Your task to perform on an android device: turn off notifications settings in the gmail app Image 0: 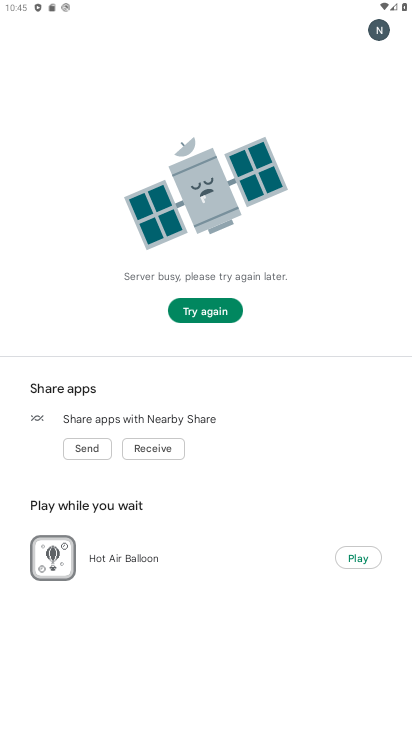
Step 0: press home button
Your task to perform on an android device: turn off notifications settings in the gmail app Image 1: 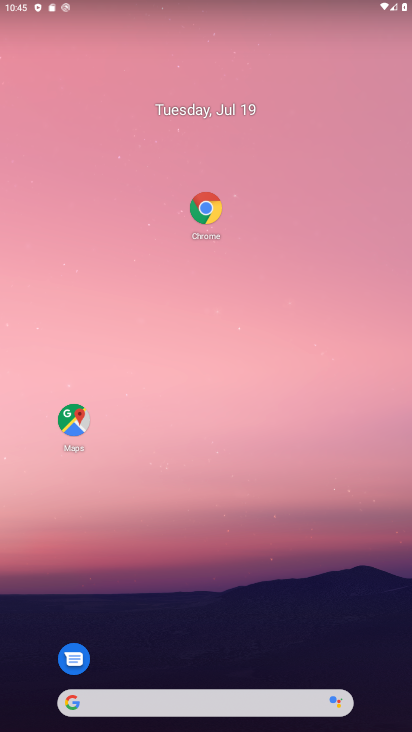
Step 1: drag from (133, 694) to (268, 154)
Your task to perform on an android device: turn off notifications settings in the gmail app Image 2: 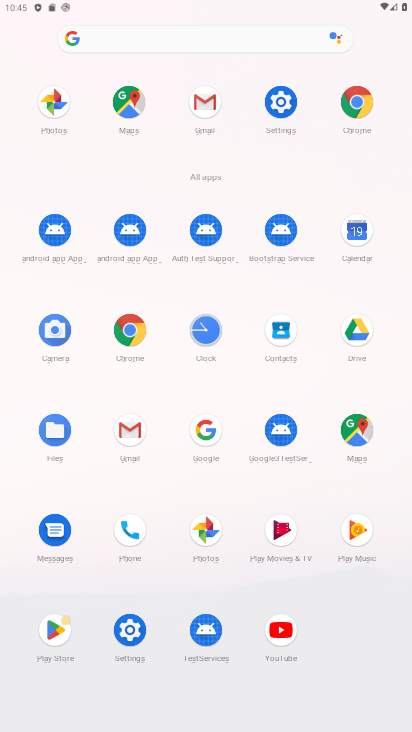
Step 2: click (131, 435)
Your task to perform on an android device: turn off notifications settings in the gmail app Image 3: 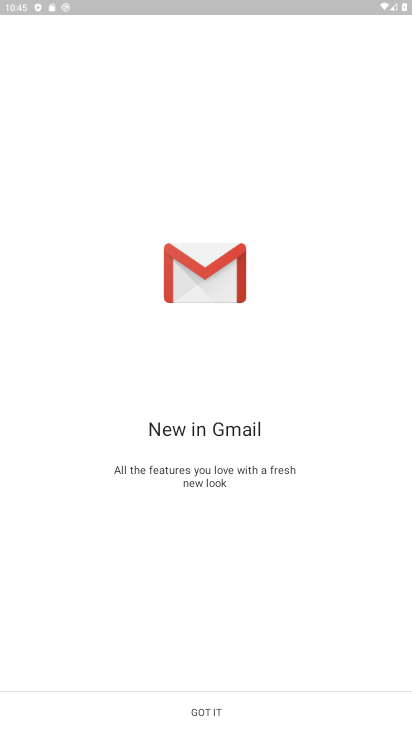
Step 3: click (237, 720)
Your task to perform on an android device: turn off notifications settings in the gmail app Image 4: 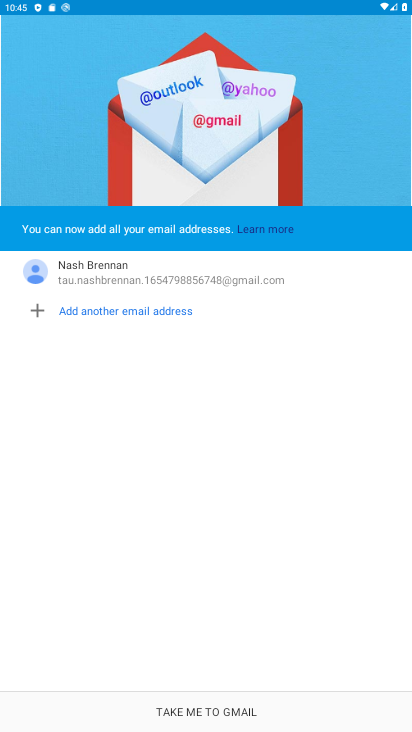
Step 4: click (250, 711)
Your task to perform on an android device: turn off notifications settings in the gmail app Image 5: 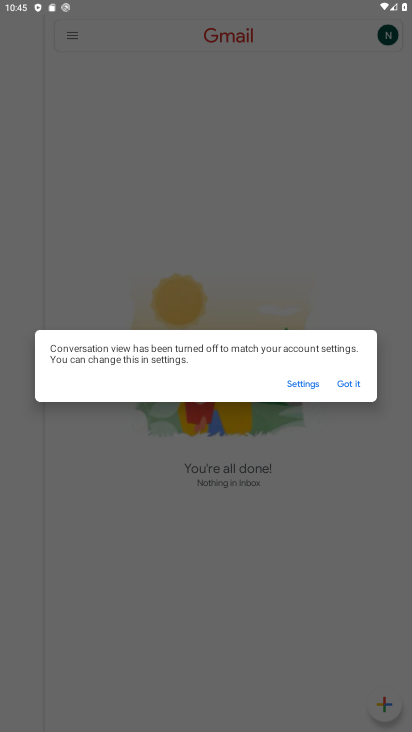
Step 5: click (351, 375)
Your task to perform on an android device: turn off notifications settings in the gmail app Image 6: 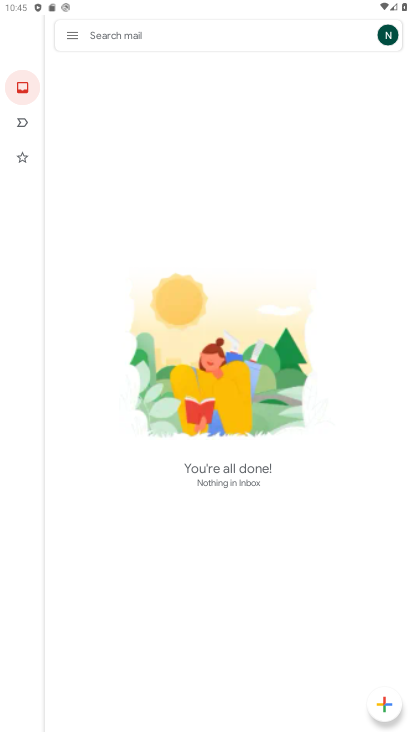
Step 6: click (77, 34)
Your task to perform on an android device: turn off notifications settings in the gmail app Image 7: 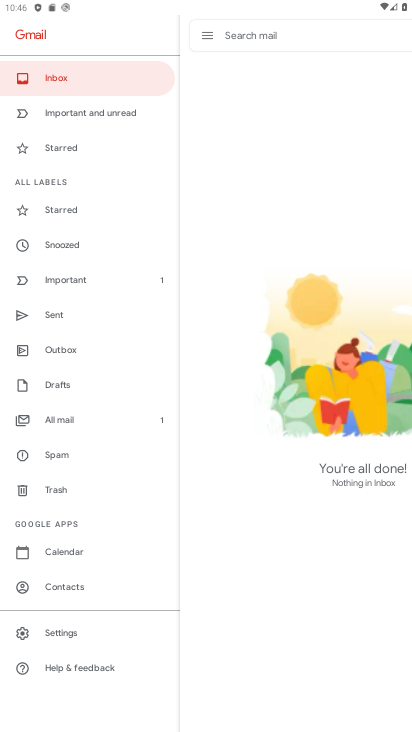
Step 7: drag from (64, 582) to (159, 234)
Your task to perform on an android device: turn off notifications settings in the gmail app Image 8: 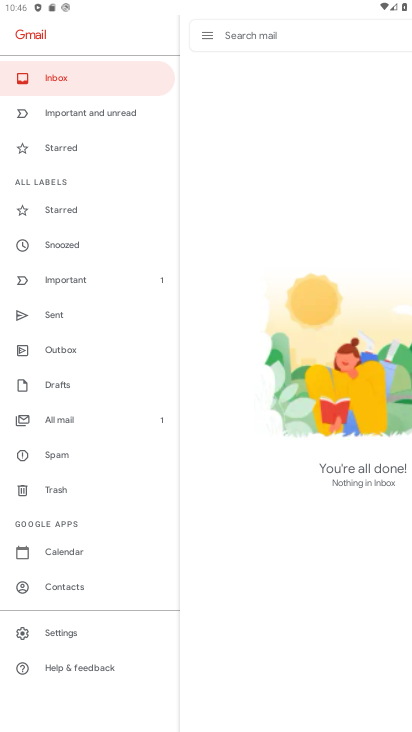
Step 8: click (109, 637)
Your task to perform on an android device: turn off notifications settings in the gmail app Image 9: 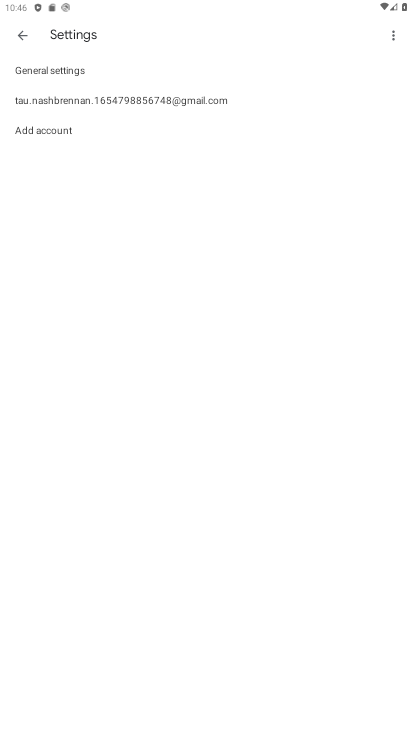
Step 9: click (218, 101)
Your task to perform on an android device: turn off notifications settings in the gmail app Image 10: 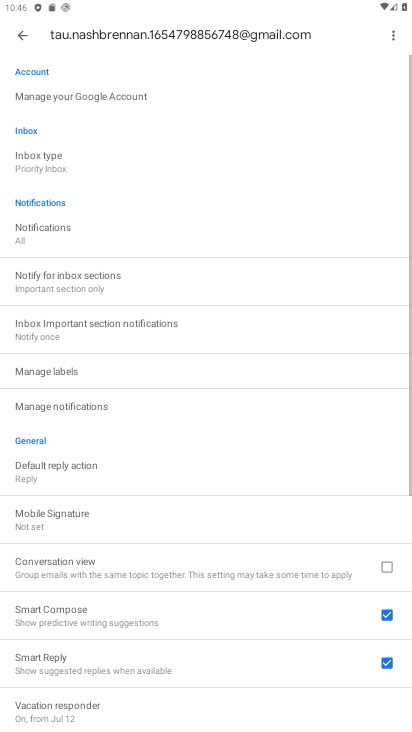
Step 10: click (192, 399)
Your task to perform on an android device: turn off notifications settings in the gmail app Image 11: 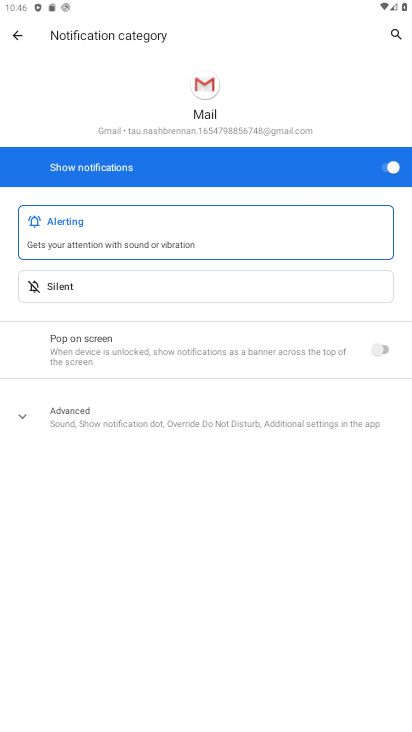
Step 11: click (386, 166)
Your task to perform on an android device: turn off notifications settings in the gmail app Image 12: 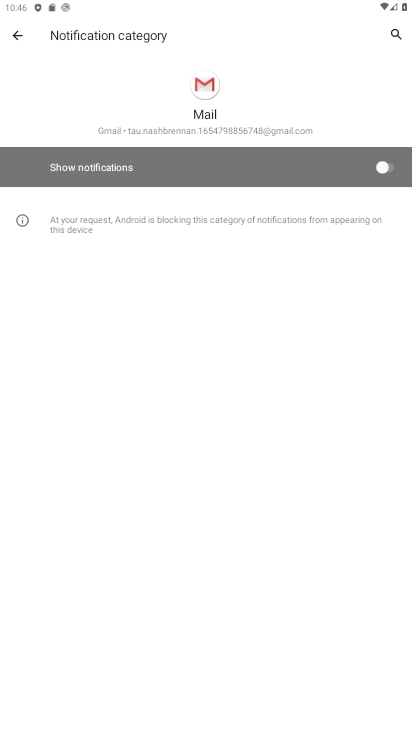
Step 12: task complete